Your task to perform on an android device: turn on wifi Image 0: 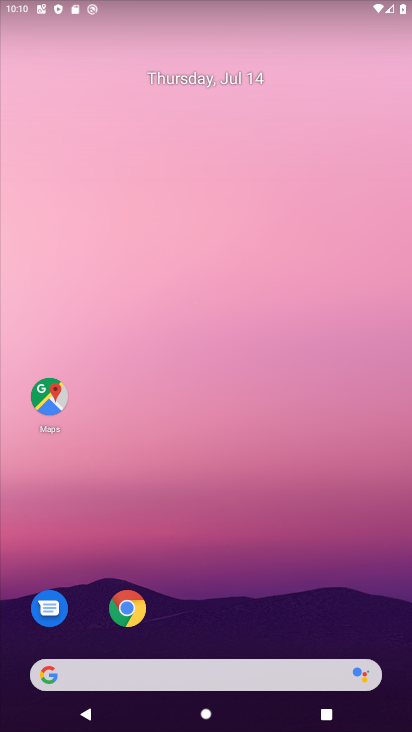
Step 0: drag from (203, 595) to (165, 259)
Your task to perform on an android device: turn on wifi Image 1: 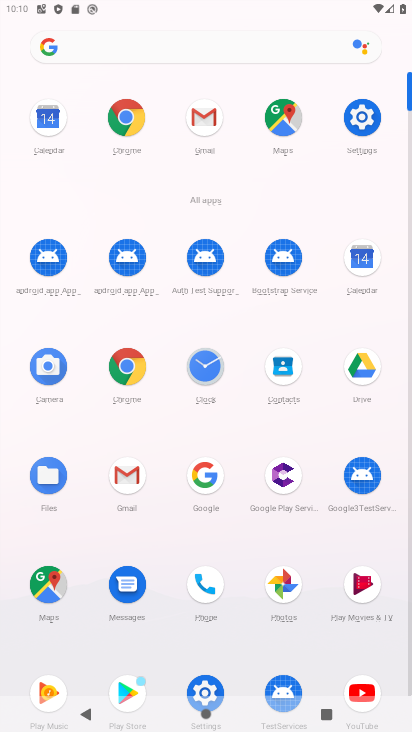
Step 1: click (360, 130)
Your task to perform on an android device: turn on wifi Image 2: 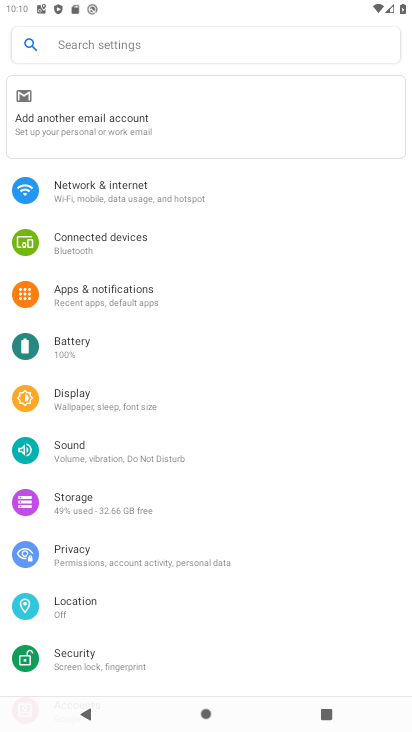
Step 2: click (106, 192)
Your task to perform on an android device: turn on wifi Image 3: 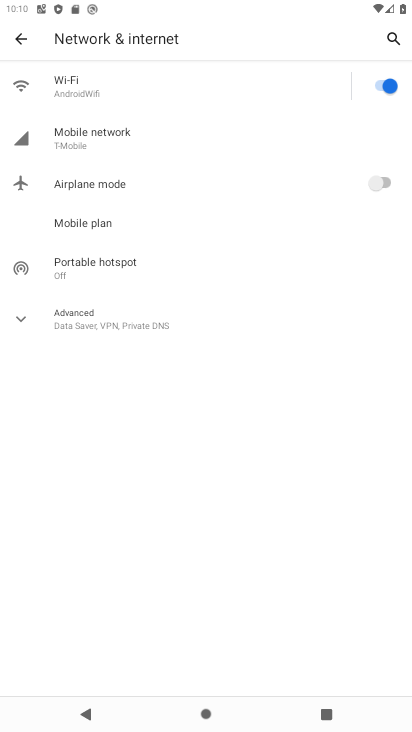
Step 3: task complete